Your task to perform on an android device: snooze an email in the gmail app Image 0: 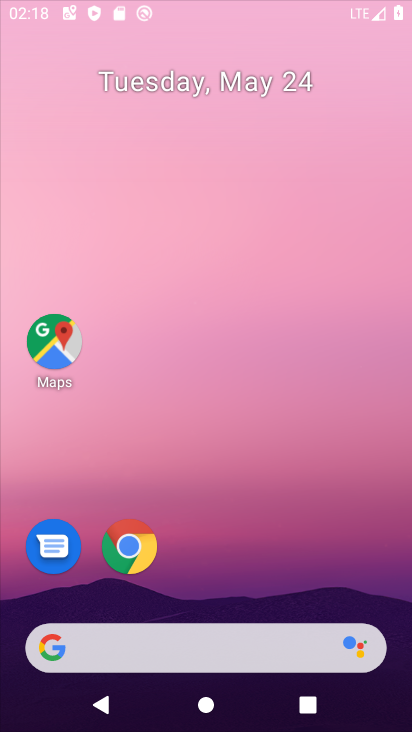
Step 0: click (285, 77)
Your task to perform on an android device: snooze an email in the gmail app Image 1: 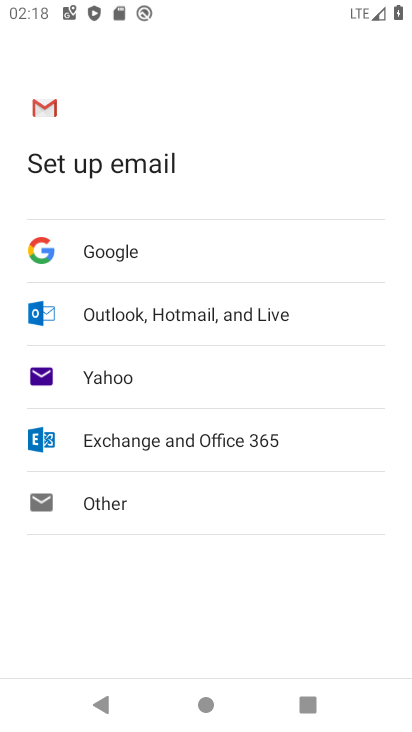
Step 1: press home button
Your task to perform on an android device: snooze an email in the gmail app Image 2: 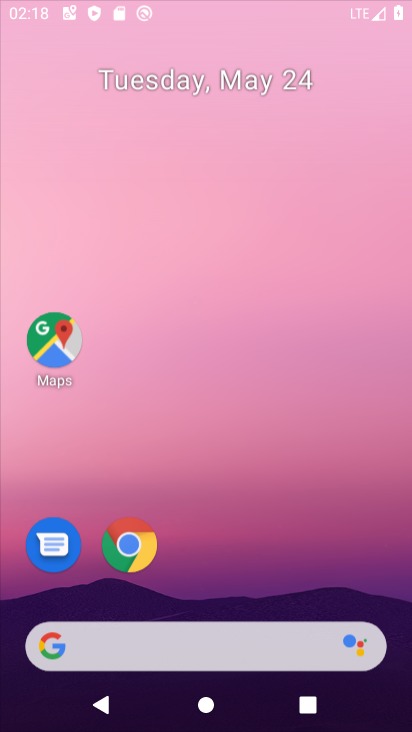
Step 2: drag from (139, 593) to (243, 16)
Your task to perform on an android device: snooze an email in the gmail app Image 3: 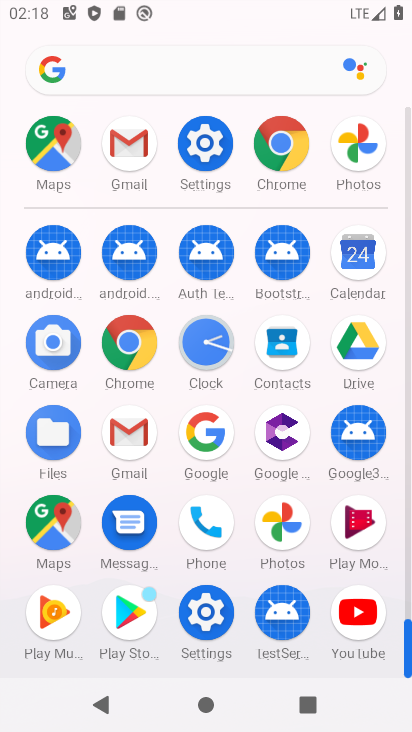
Step 3: click (135, 433)
Your task to perform on an android device: snooze an email in the gmail app Image 4: 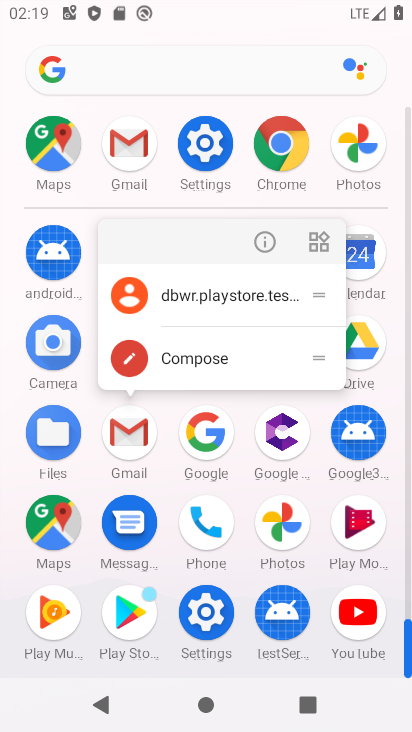
Step 4: click (221, 293)
Your task to perform on an android device: snooze an email in the gmail app Image 5: 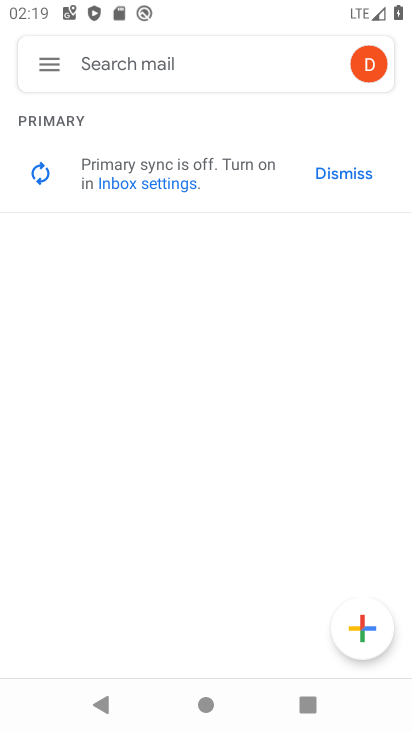
Step 5: click (40, 51)
Your task to perform on an android device: snooze an email in the gmail app Image 6: 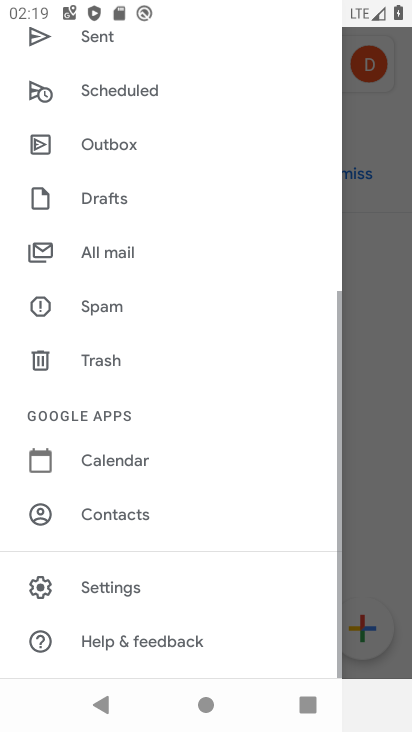
Step 6: drag from (157, 203) to (406, 212)
Your task to perform on an android device: snooze an email in the gmail app Image 7: 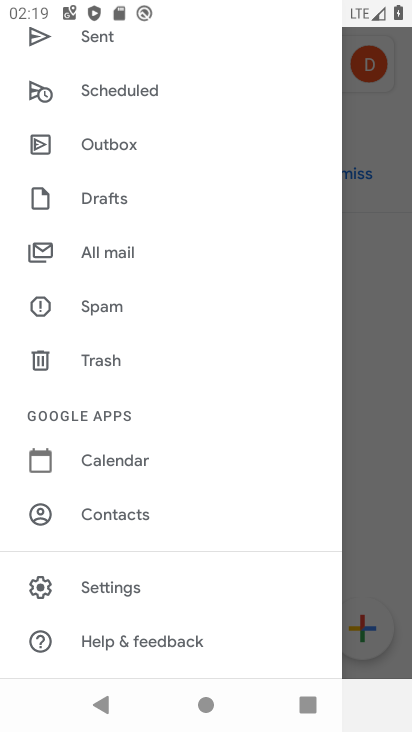
Step 7: drag from (154, 167) to (313, 552)
Your task to perform on an android device: snooze an email in the gmail app Image 8: 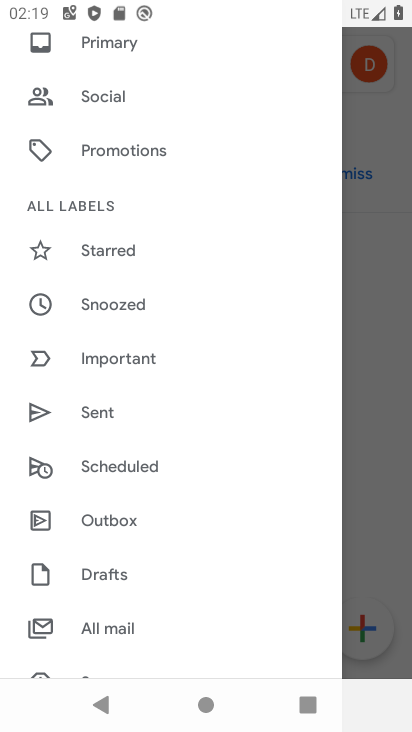
Step 8: click (139, 309)
Your task to perform on an android device: snooze an email in the gmail app Image 9: 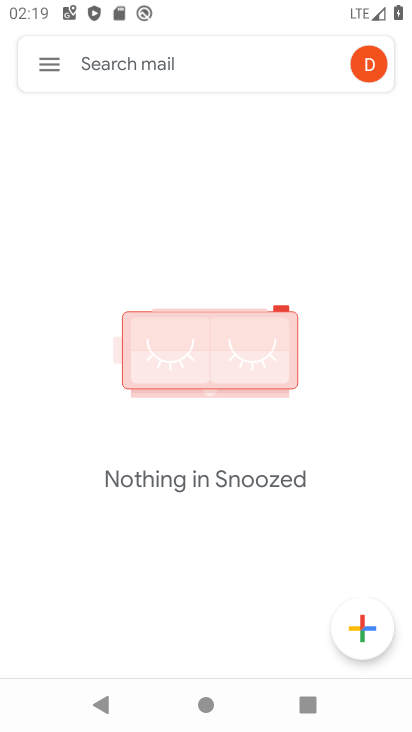
Step 9: task complete